Your task to perform on an android device: Set the phone to "Do not disturb". Image 0: 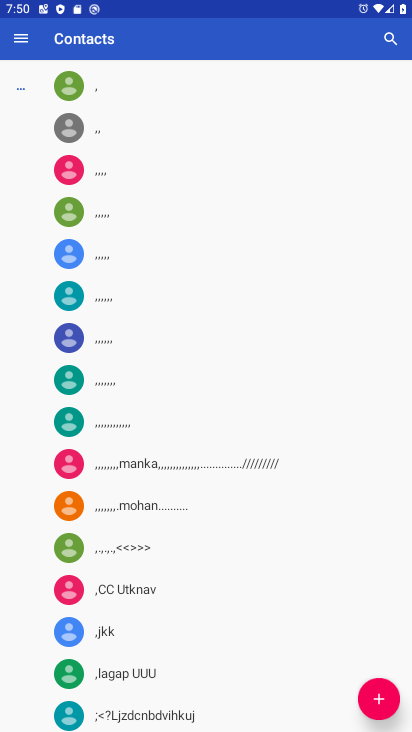
Step 0: press home button
Your task to perform on an android device: Set the phone to "Do not disturb". Image 1: 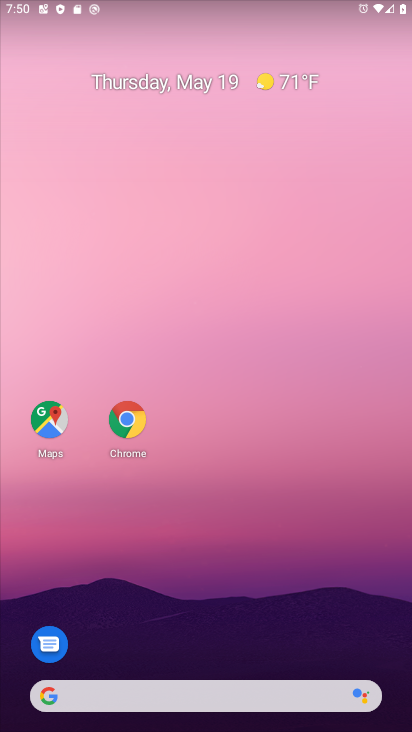
Step 1: drag from (190, 634) to (235, 264)
Your task to perform on an android device: Set the phone to "Do not disturb". Image 2: 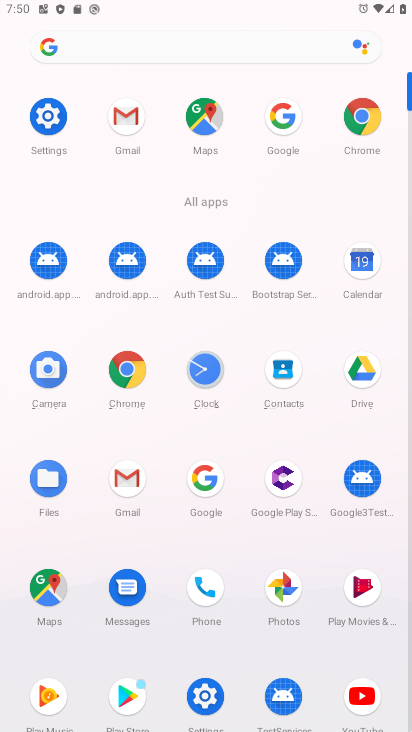
Step 2: click (50, 127)
Your task to perform on an android device: Set the phone to "Do not disturb". Image 3: 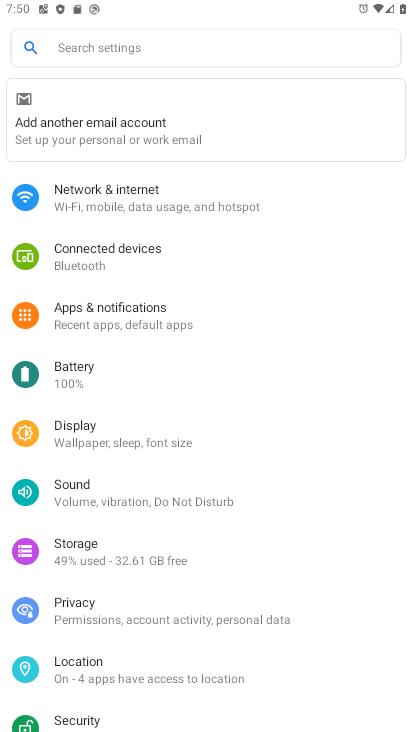
Step 3: click (130, 490)
Your task to perform on an android device: Set the phone to "Do not disturb". Image 4: 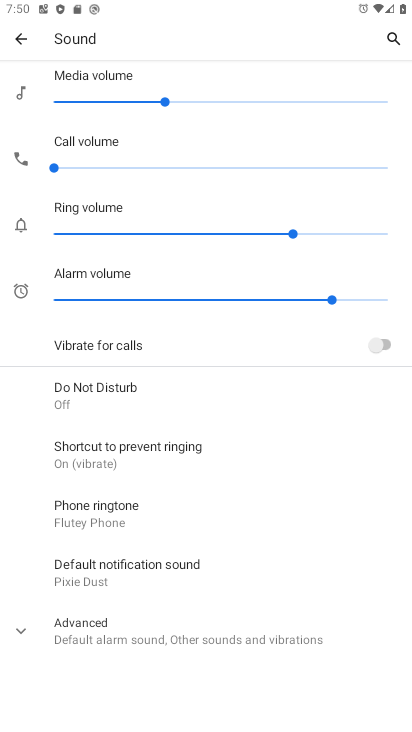
Step 4: click (61, 623)
Your task to perform on an android device: Set the phone to "Do not disturb". Image 5: 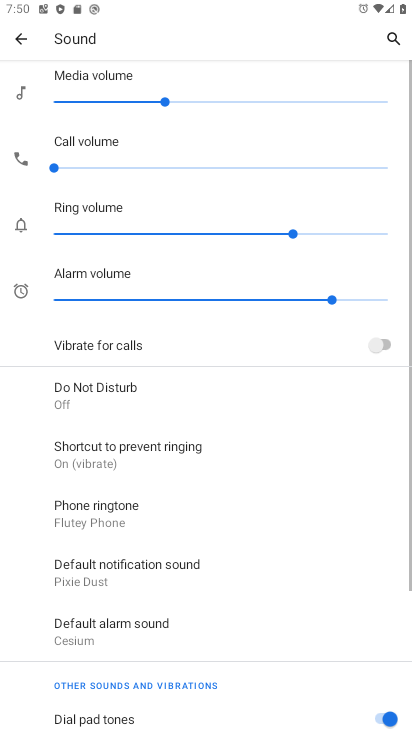
Step 5: click (130, 394)
Your task to perform on an android device: Set the phone to "Do not disturb". Image 6: 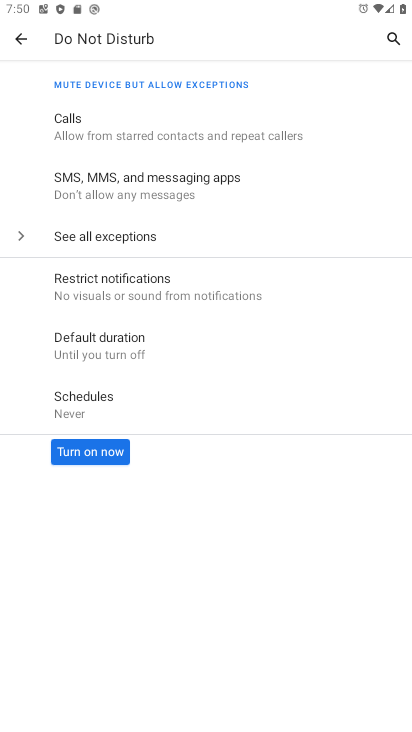
Step 6: click (85, 456)
Your task to perform on an android device: Set the phone to "Do not disturb". Image 7: 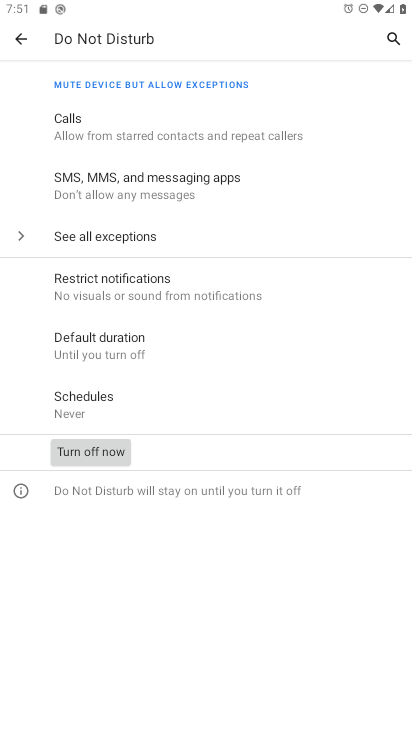
Step 7: task complete